Your task to perform on an android device: toggle data saver in the chrome app Image 0: 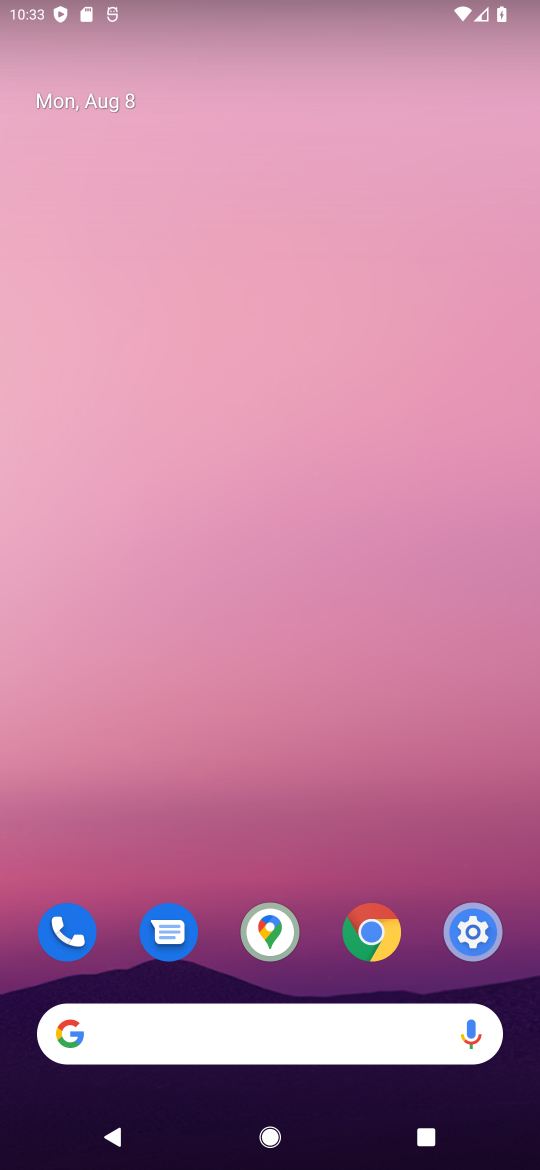
Step 0: click (351, 934)
Your task to perform on an android device: toggle data saver in the chrome app Image 1: 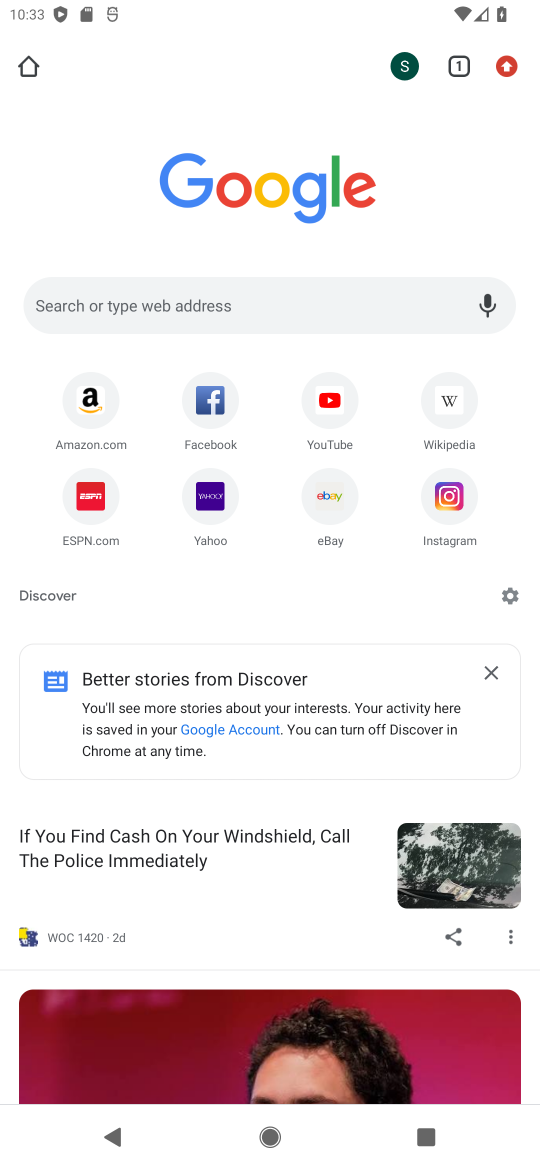
Step 1: click (519, 72)
Your task to perform on an android device: toggle data saver in the chrome app Image 2: 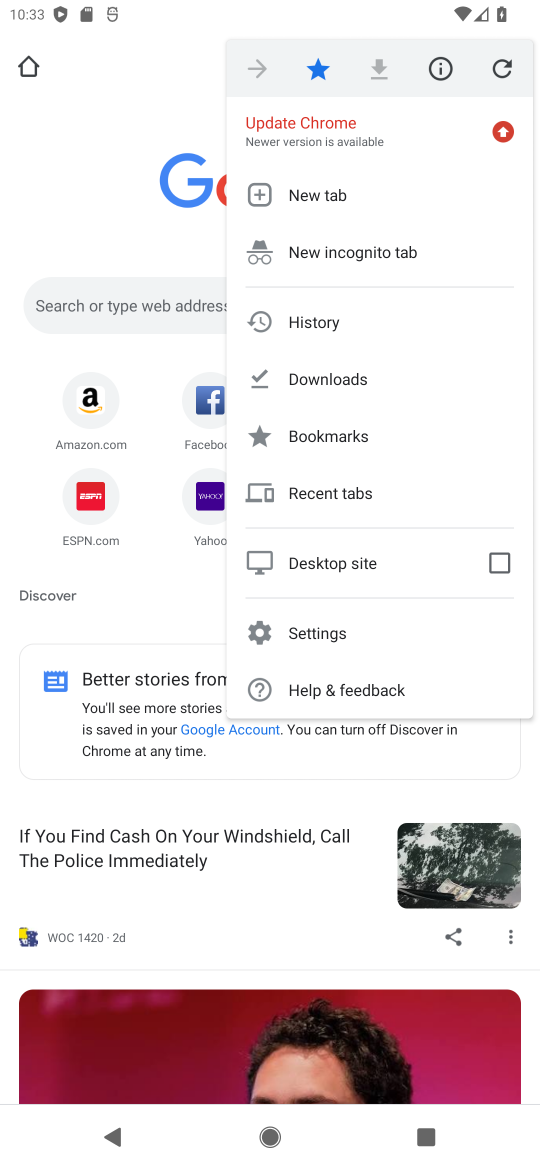
Step 2: click (368, 650)
Your task to perform on an android device: toggle data saver in the chrome app Image 3: 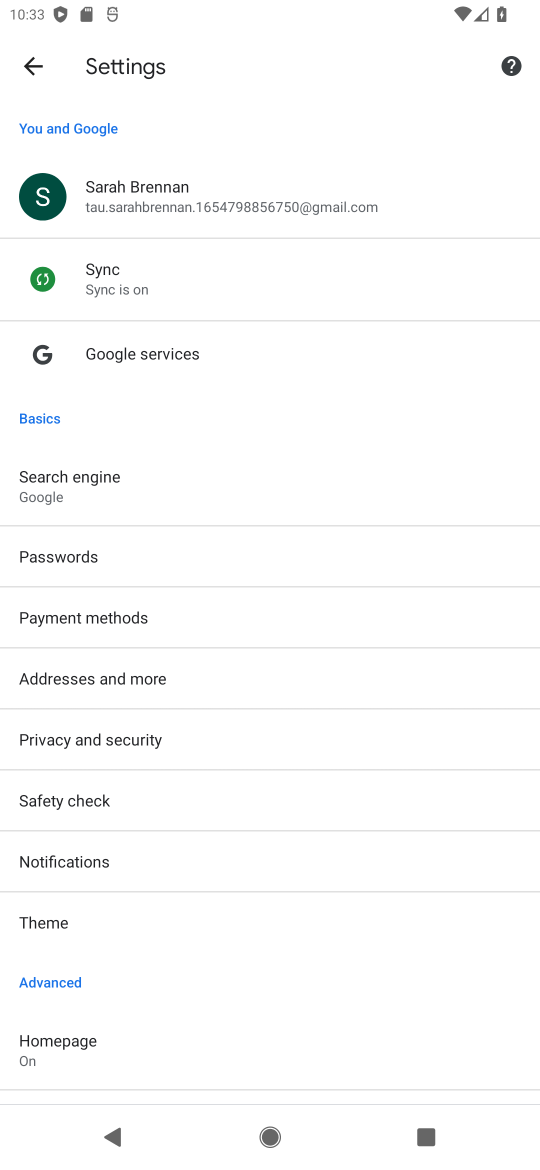
Step 3: drag from (152, 959) to (213, 389)
Your task to perform on an android device: toggle data saver in the chrome app Image 4: 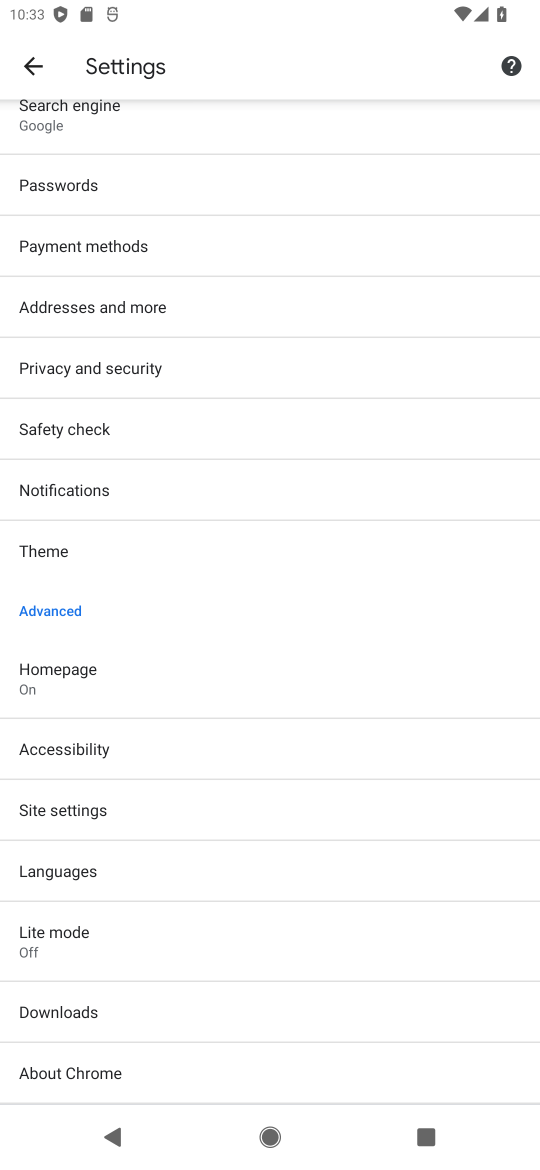
Step 4: drag from (129, 984) to (197, 213)
Your task to perform on an android device: toggle data saver in the chrome app Image 5: 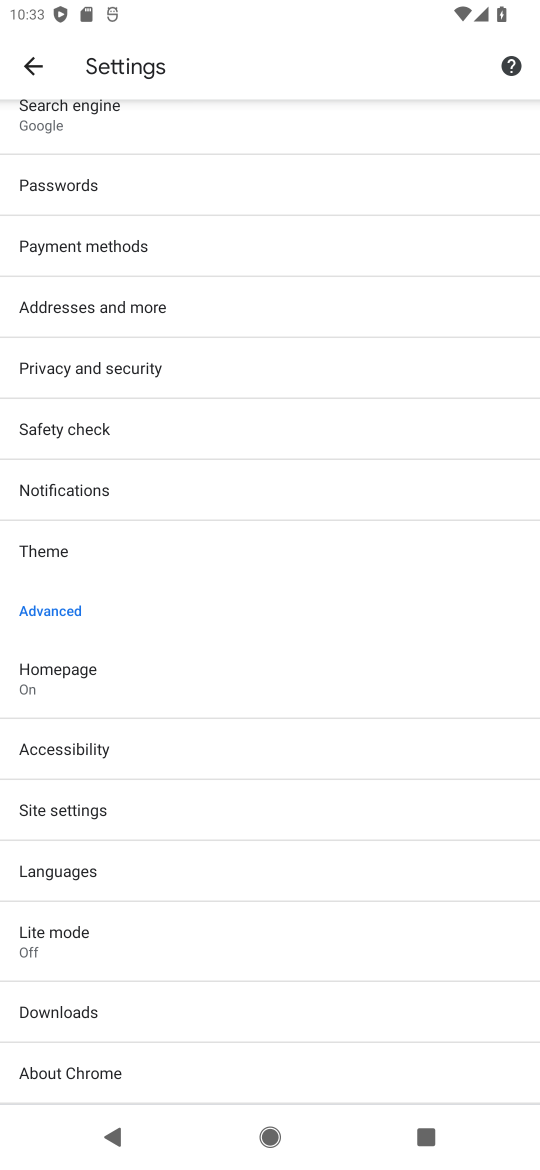
Step 5: click (114, 809)
Your task to perform on an android device: toggle data saver in the chrome app Image 6: 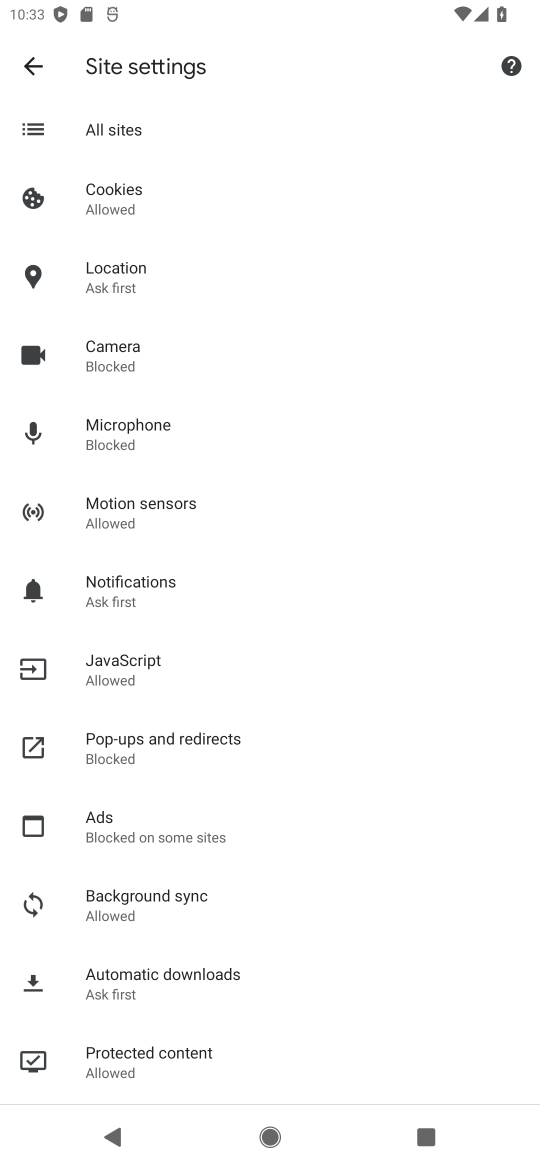
Step 6: click (32, 51)
Your task to perform on an android device: toggle data saver in the chrome app Image 7: 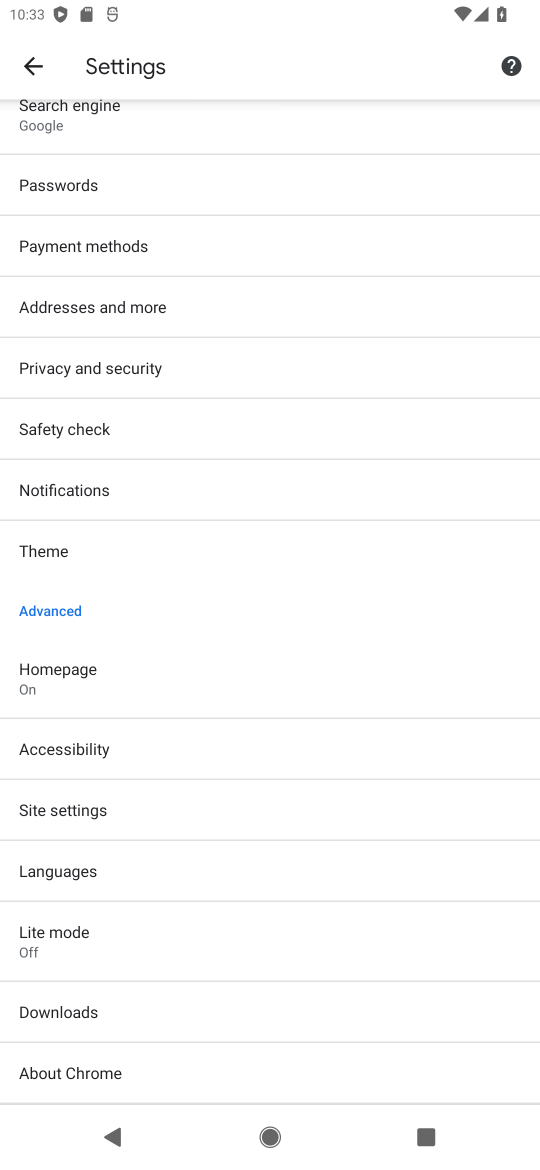
Step 7: click (174, 950)
Your task to perform on an android device: toggle data saver in the chrome app Image 8: 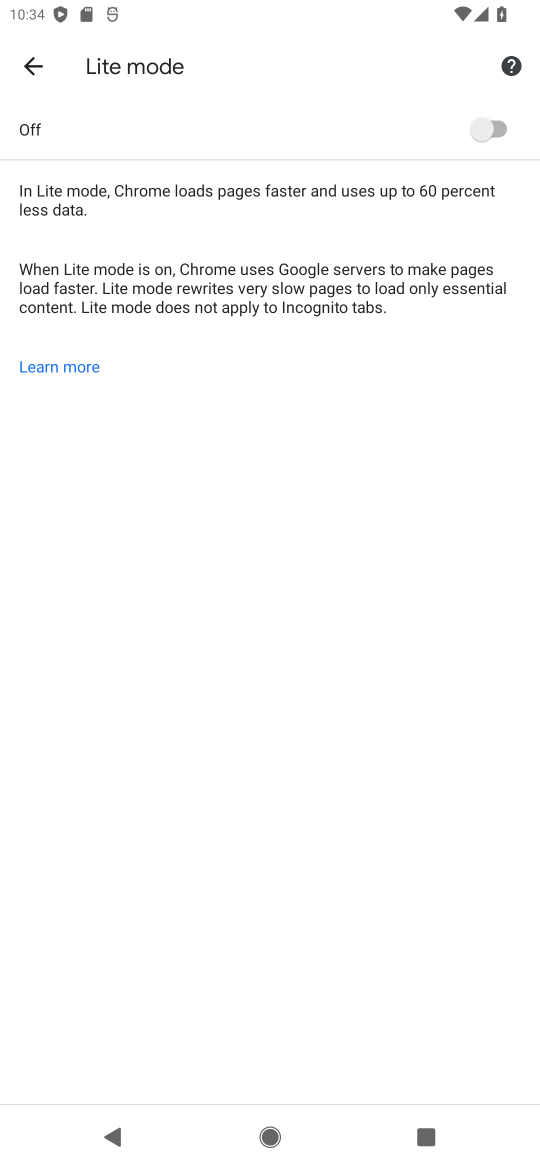
Step 8: click (482, 124)
Your task to perform on an android device: toggle data saver in the chrome app Image 9: 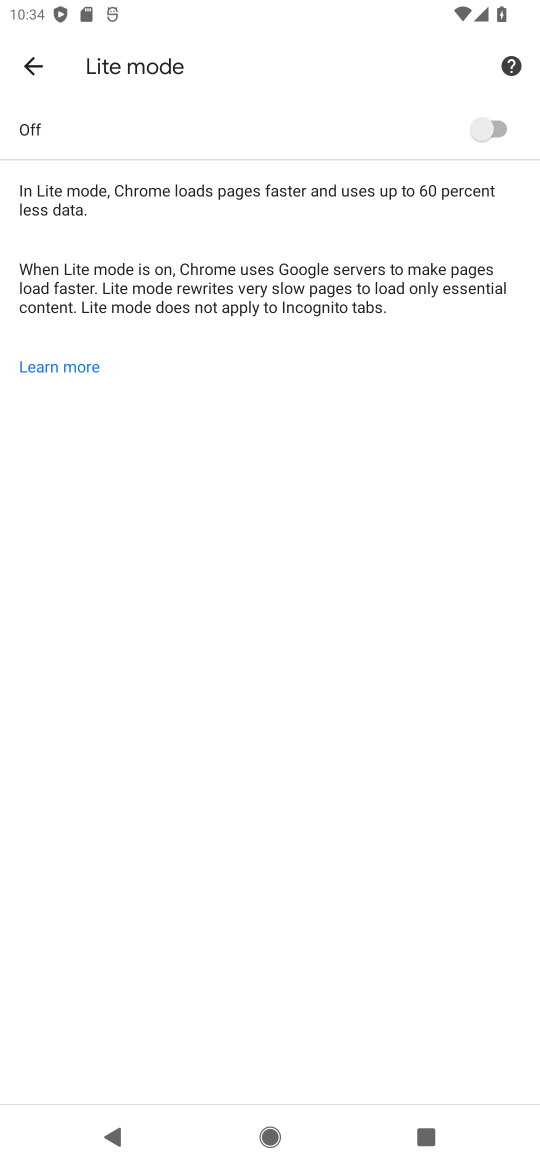
Step 9: click (482, 124)
Your task to perform on an android device: toggle data saver in the chrome app Image 10: 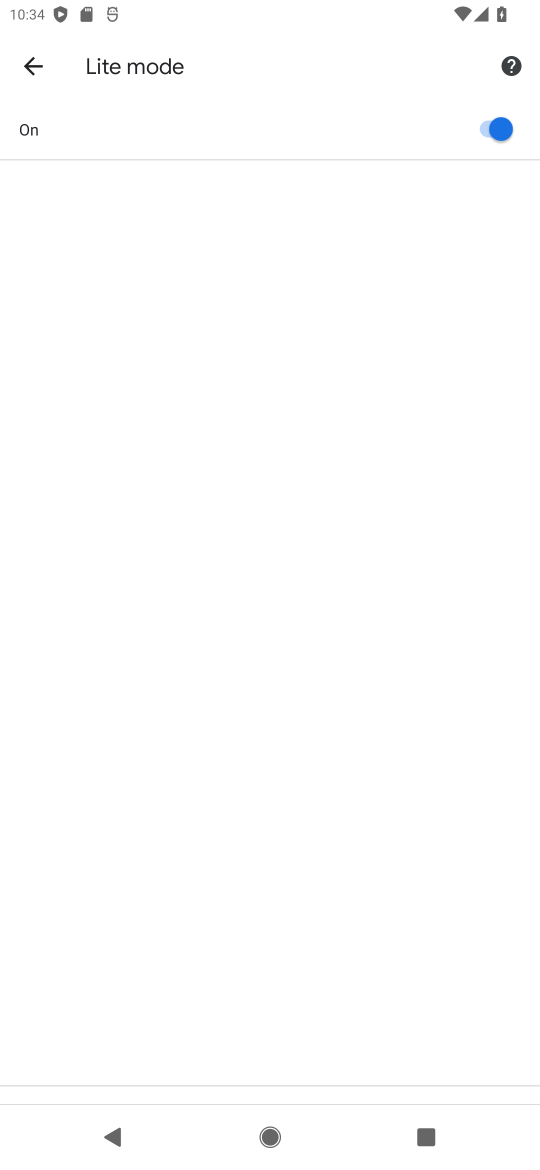
Step 10: click (482, 124)
Your task to perform on an android device: toggle data saver in the chrome app Image 11: 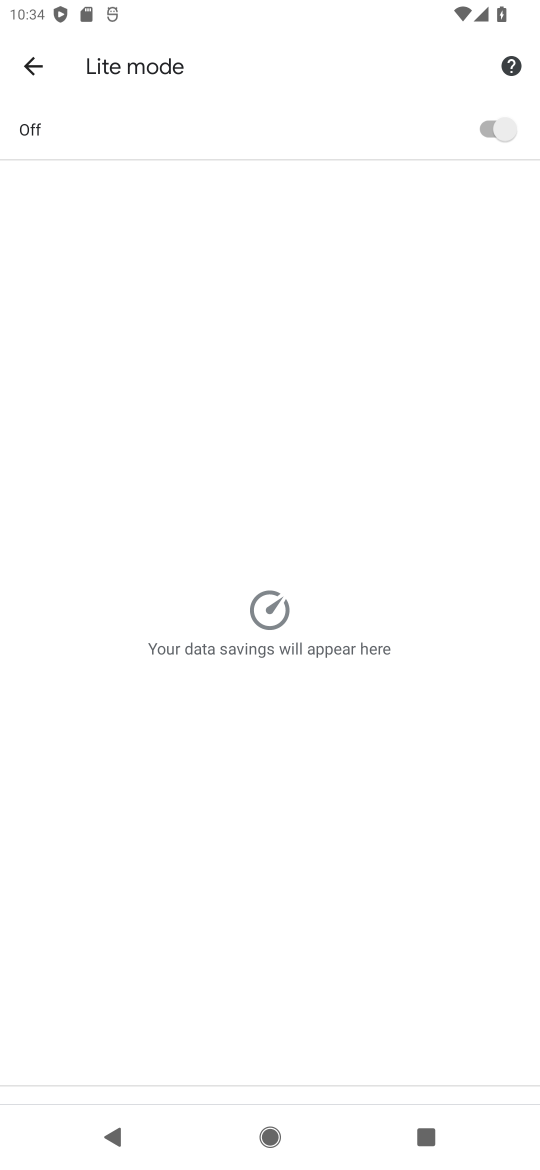
Step 11: click (482, 124)
Your task to perform on an android device: toggle data saver in the chrome app Image 12: 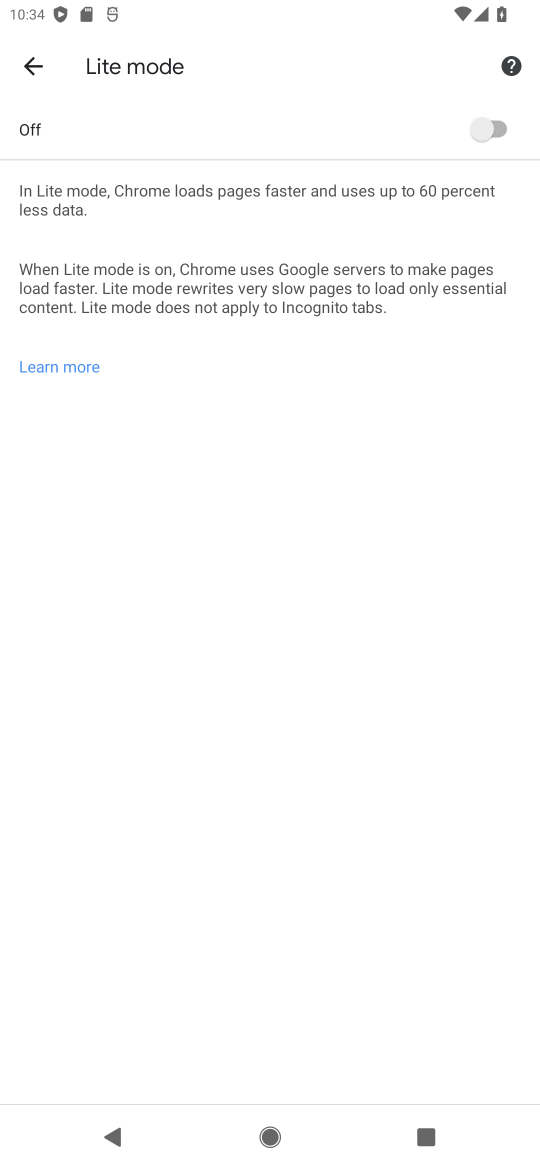
Step 12: click (482, 124)
Your task to perform on an android device: toggle data saver in the chrome app Image 13: 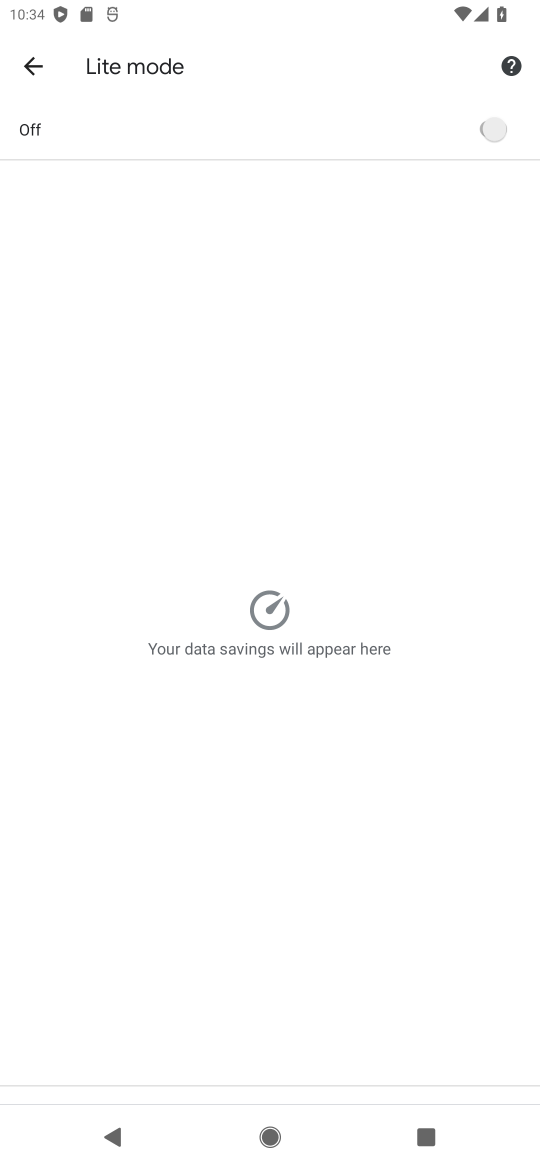
Step 13: click (482, 124)
Your task to perform on an android device: toggle data saver in the chrome app Image 14: 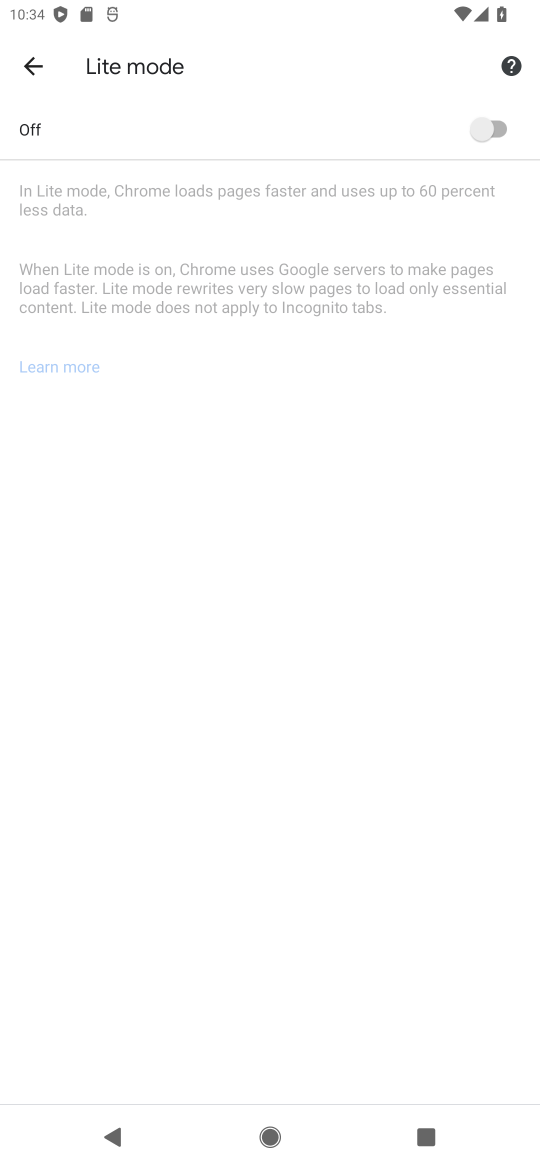
Step 14: click (482, 124)
Your task to perform on an android device: toggle data saver in the chrome app Image 15: 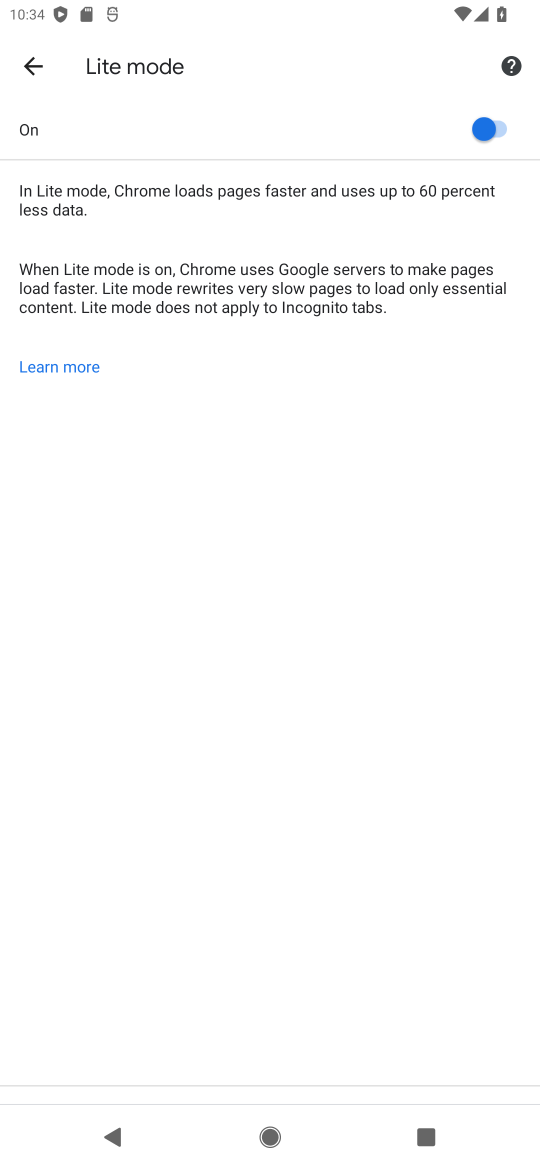
Step 15: click (482, 124)
Your task to perform on an android device: toggle data saver in the chrome app Image 16: 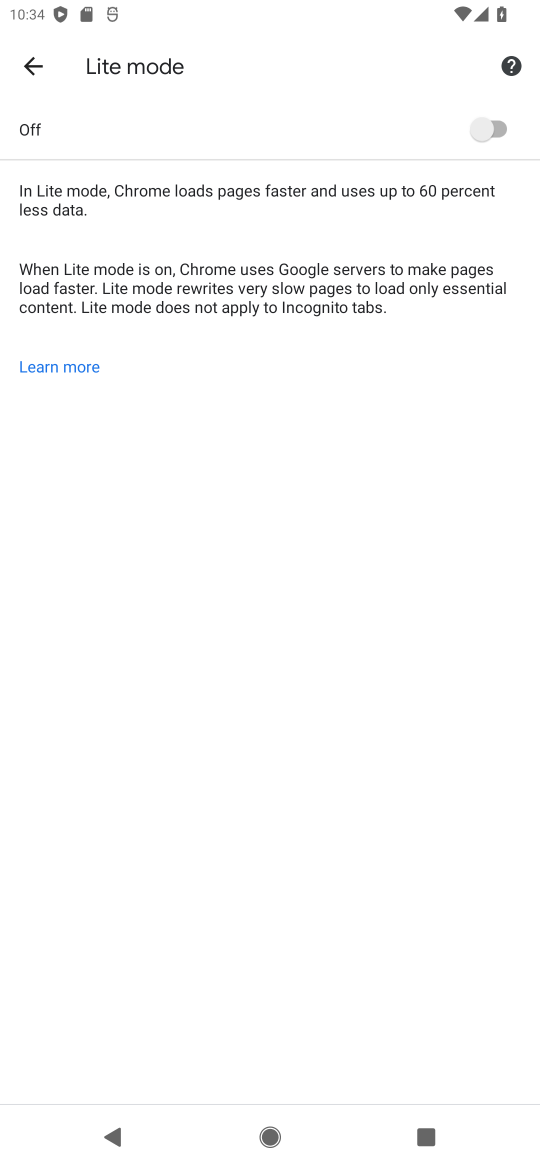
Step 16: task complete